Your task to perform on an android device: Go to Maps Image 0: 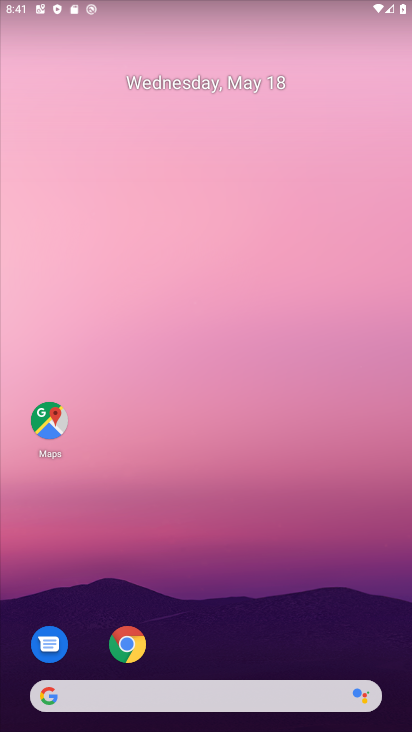
Step 0: click (48, 405)
Your task to perform on an android device: Go to Maps Image 1: 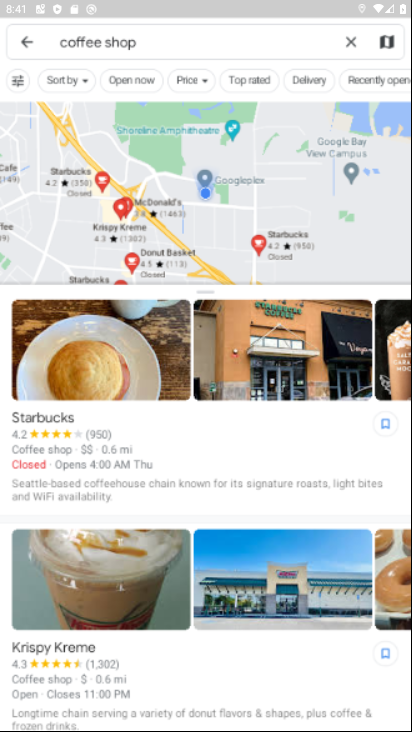
Step 1: task complete